Your task to perform on an android device: Open the map Image 0: 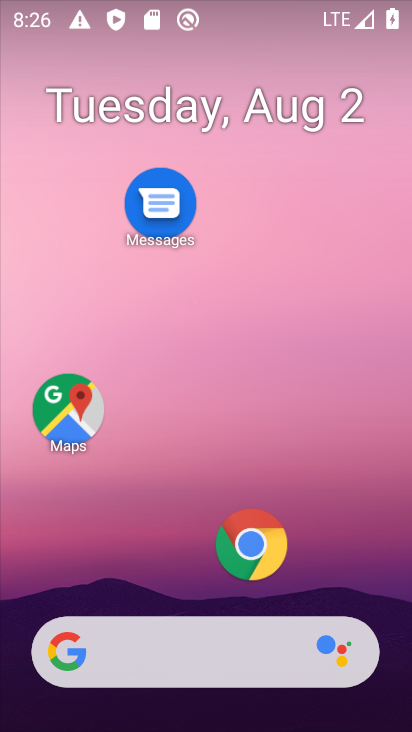
Step 0: click (80, 380)
Your task to perform on an android device: Open the map Image 1: 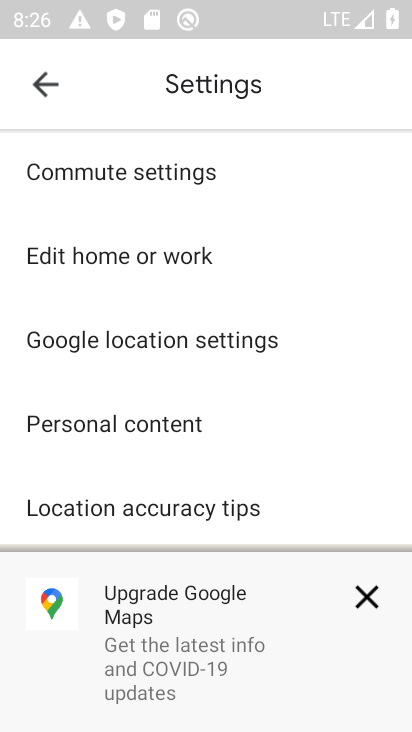
Step 1: click (38, 95)
Your task to perform on an android device: Open the map Image 2: 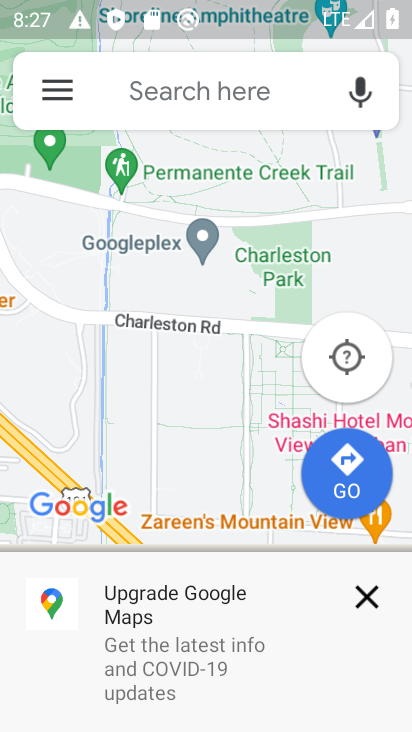
Step 2: task complete